Your task to perform on an android device: Add bose soundlink mini to the cart on target, then select checkout. Image 0: 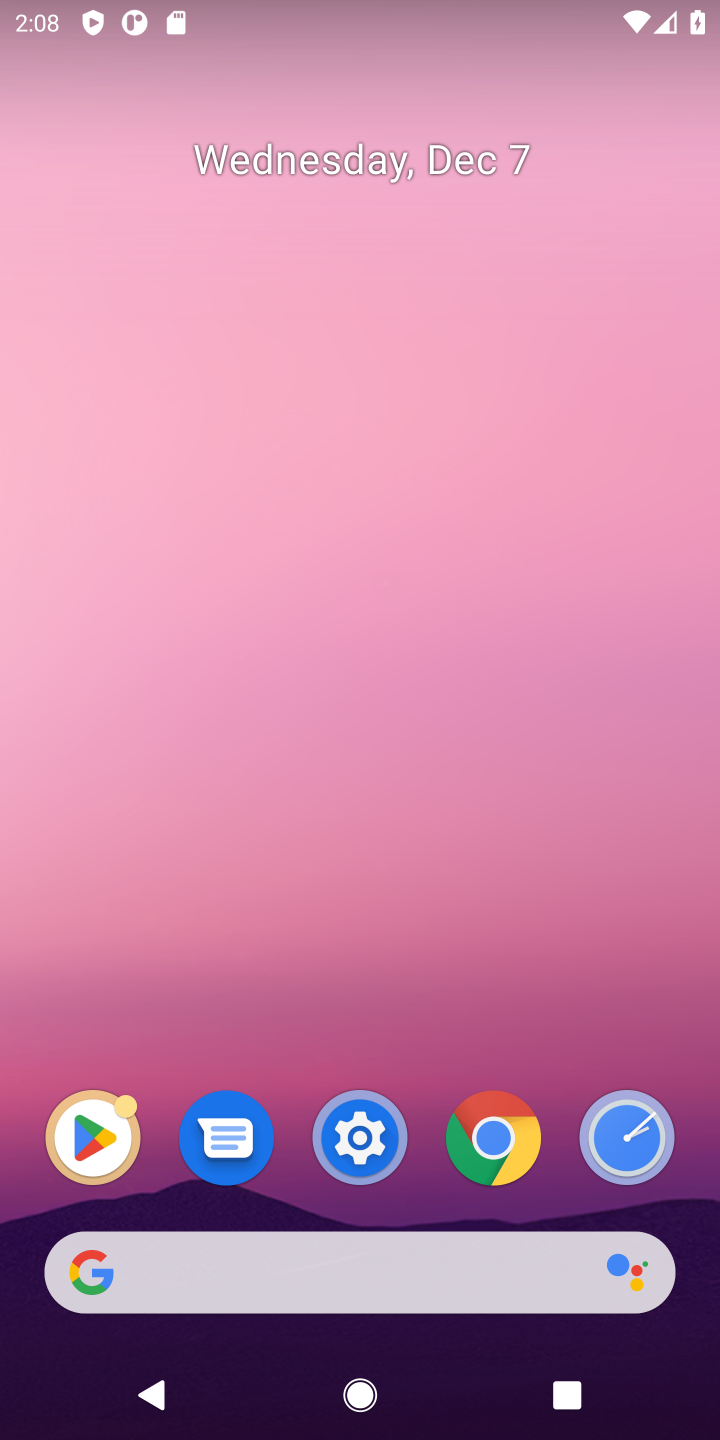
Step 0: click (304, 1267)
Your task to perform on an android device: Add bose soundlink mini to the cart on target, then select checkout. Image 1: 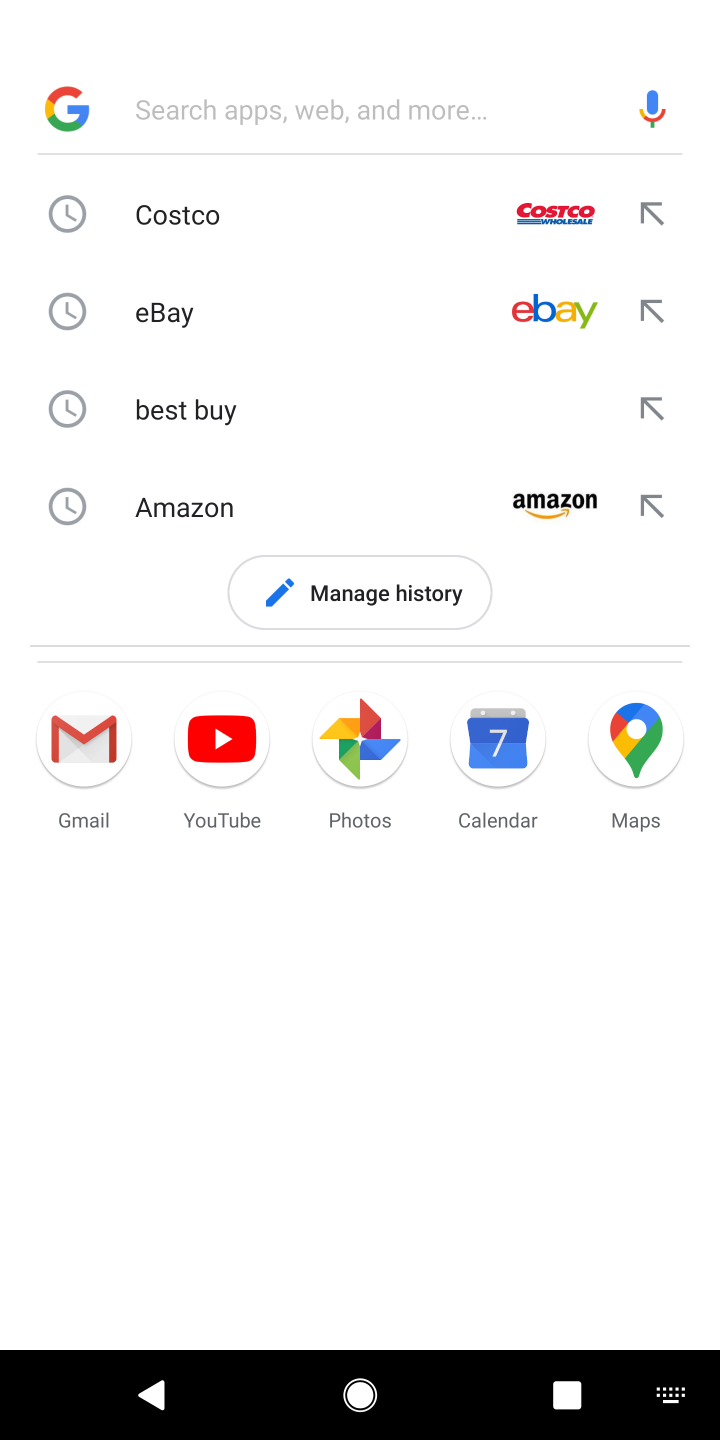
Step 1: type "target"
Your task to perform on an android device: Add bose soundlink mini to the cart on target, then select checkout. Image 2: 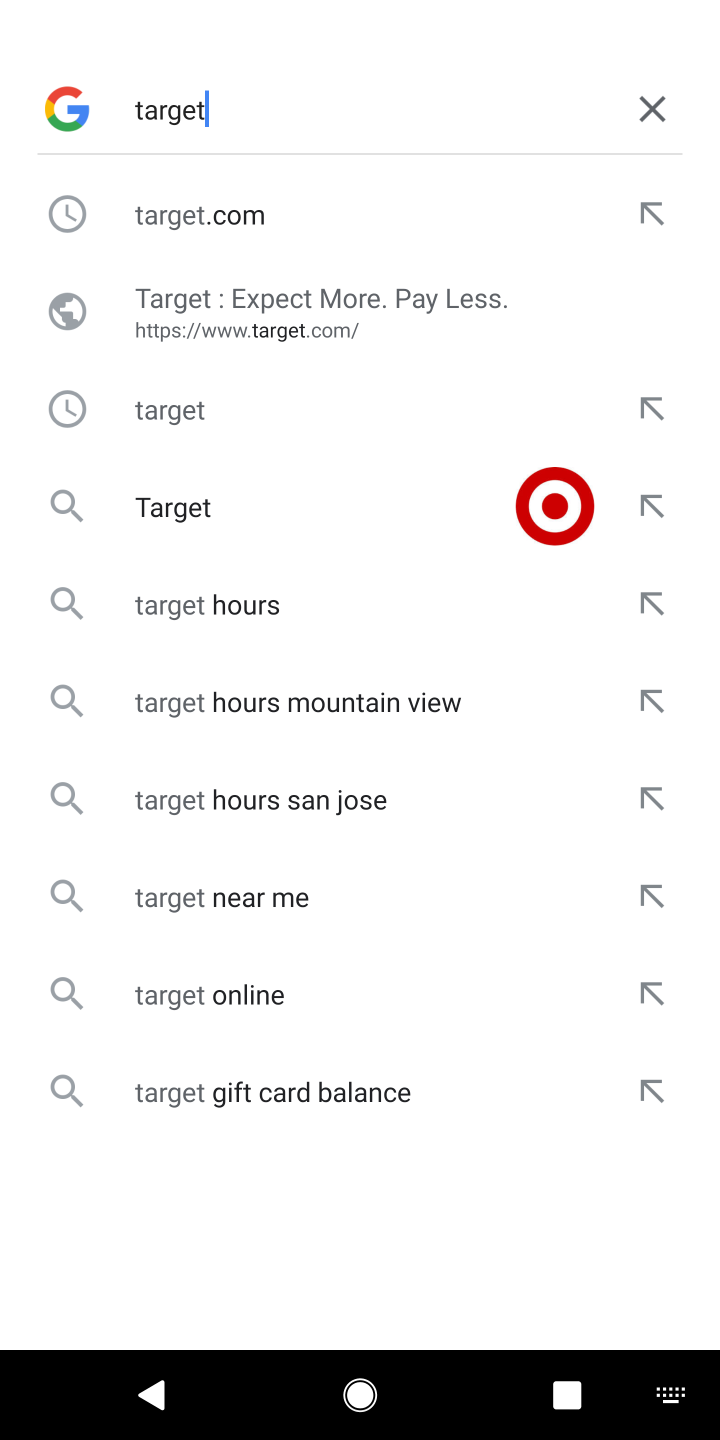
Step 2: click (182, 506)
Your task to perform on an android device: Add bose soundlink mini to the cart on target, then select checkout. Image 3: 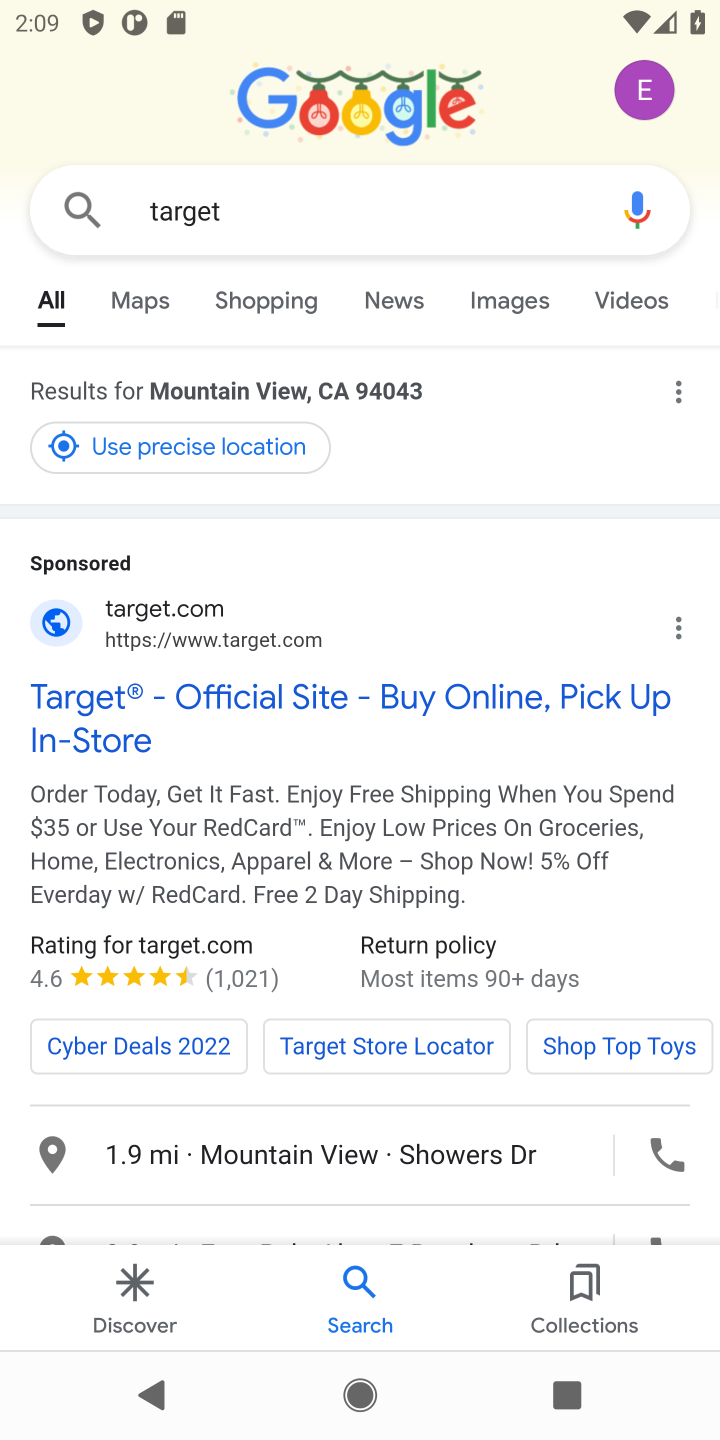
Step 3: click (104, 683)
Your task to perform on an android device: Add bose soundlink mini to the cart on target, then select checkout. Image 4: 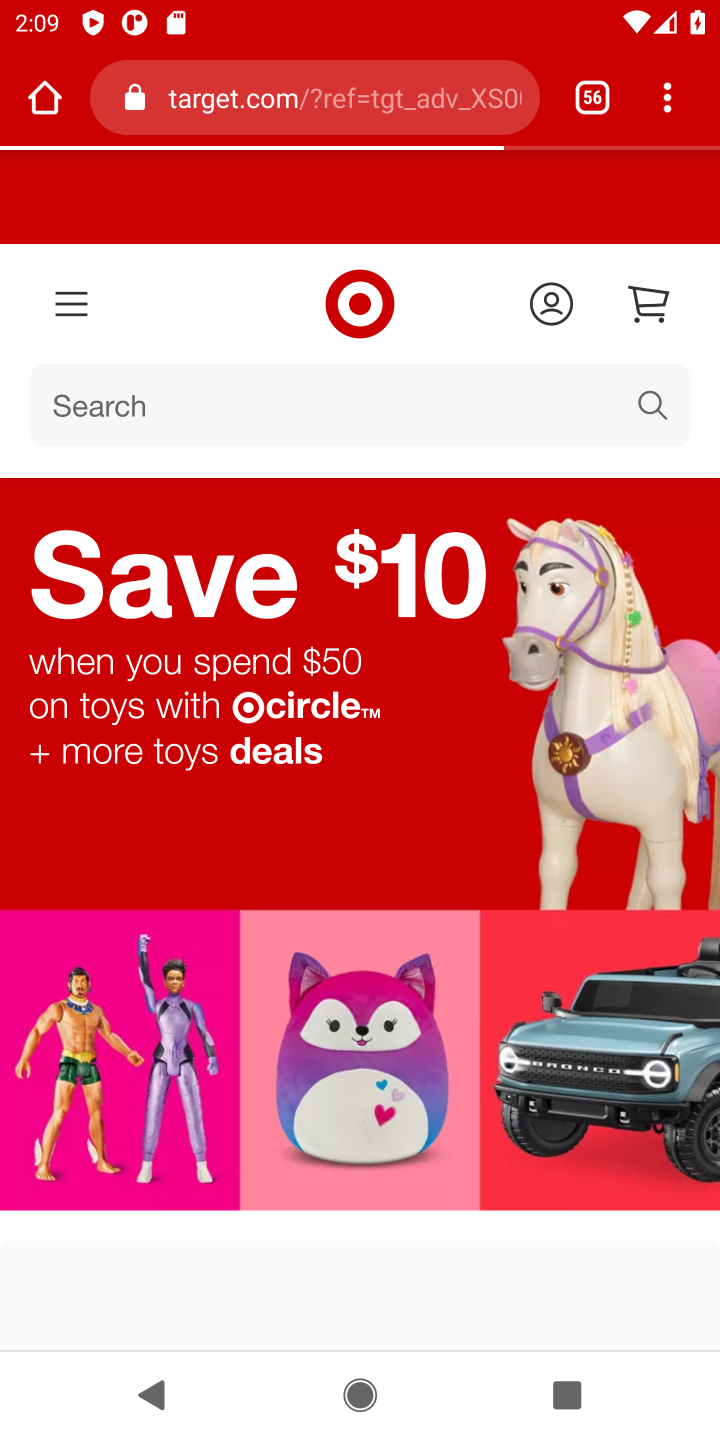
Step 4: click (266, 403)
Your task to perform on an android device: Add bose soundlink mini to the cart on target, then select checkout. Image 5: 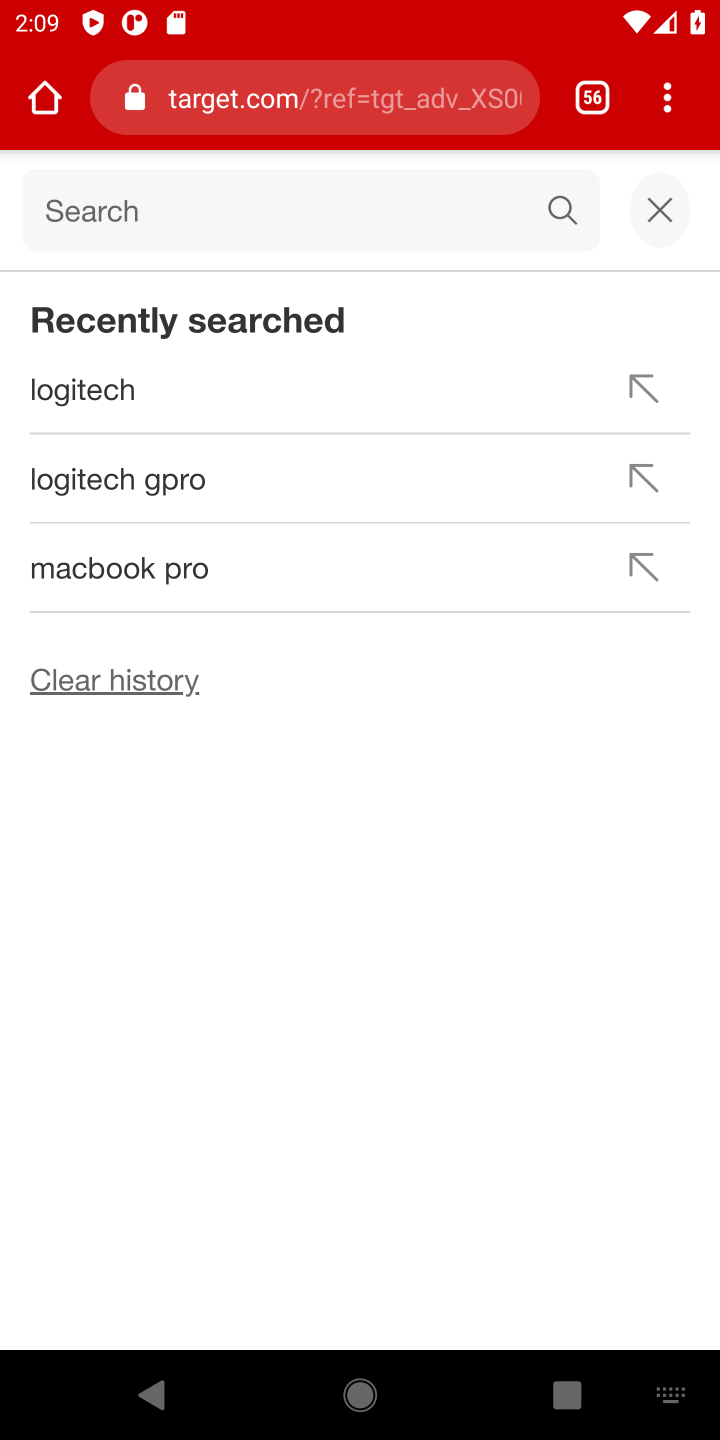
Step 5: type "soundlink"
Your task to perform on an android device: Add bose soundlink mini to the cart on target, then select checkout. Image 6: 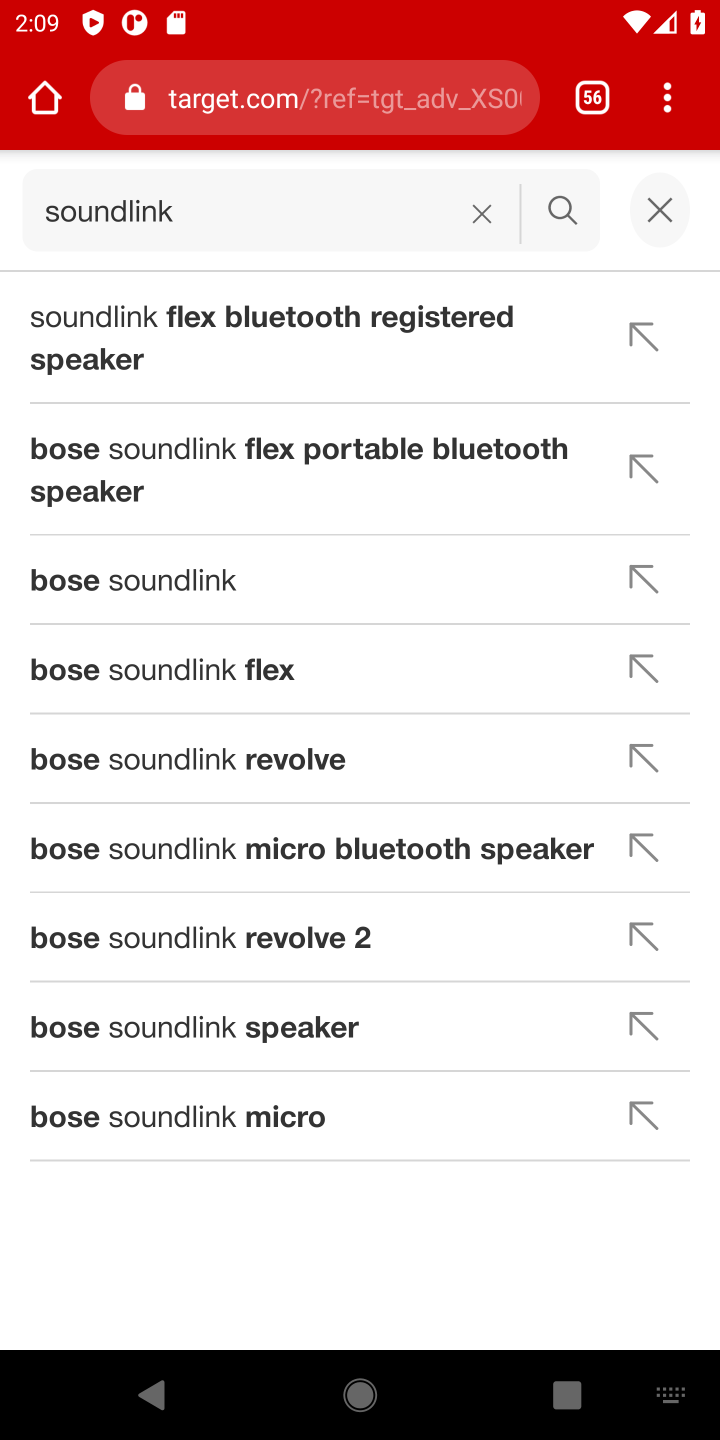
Step 6: click (128, 367)
Your task to perform on an android device: Add bose soundlink mini to the cart on target, then select checkout. Image 7: 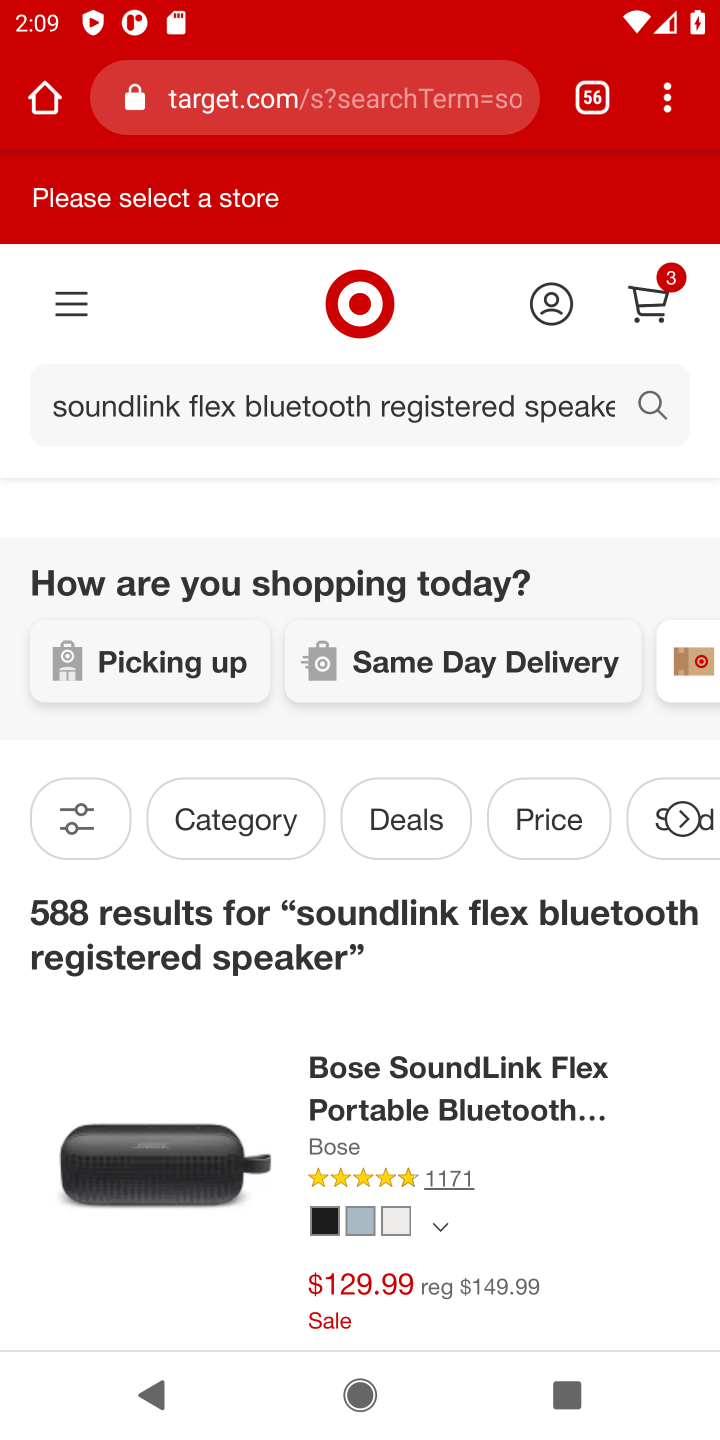
Step 7: drag from (284, 1100) to (297, 536)
Your task to perform on an android device: Add bose soundlink mini to the cart on target, then select checkout. Image 8: 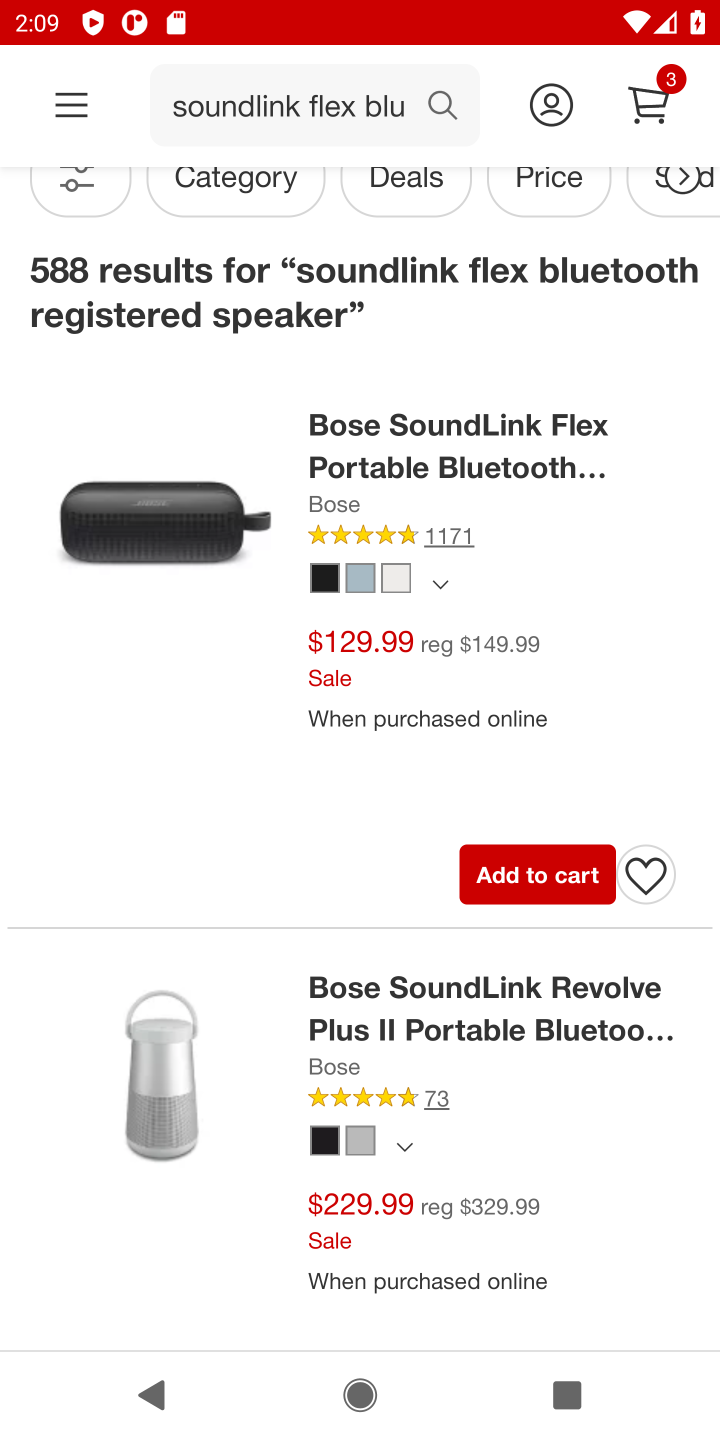
Step 8: click (511, 857)
Your task to perform on an android device: Add bose soundlink mini to the cart on target, then select checkout. Image 9: 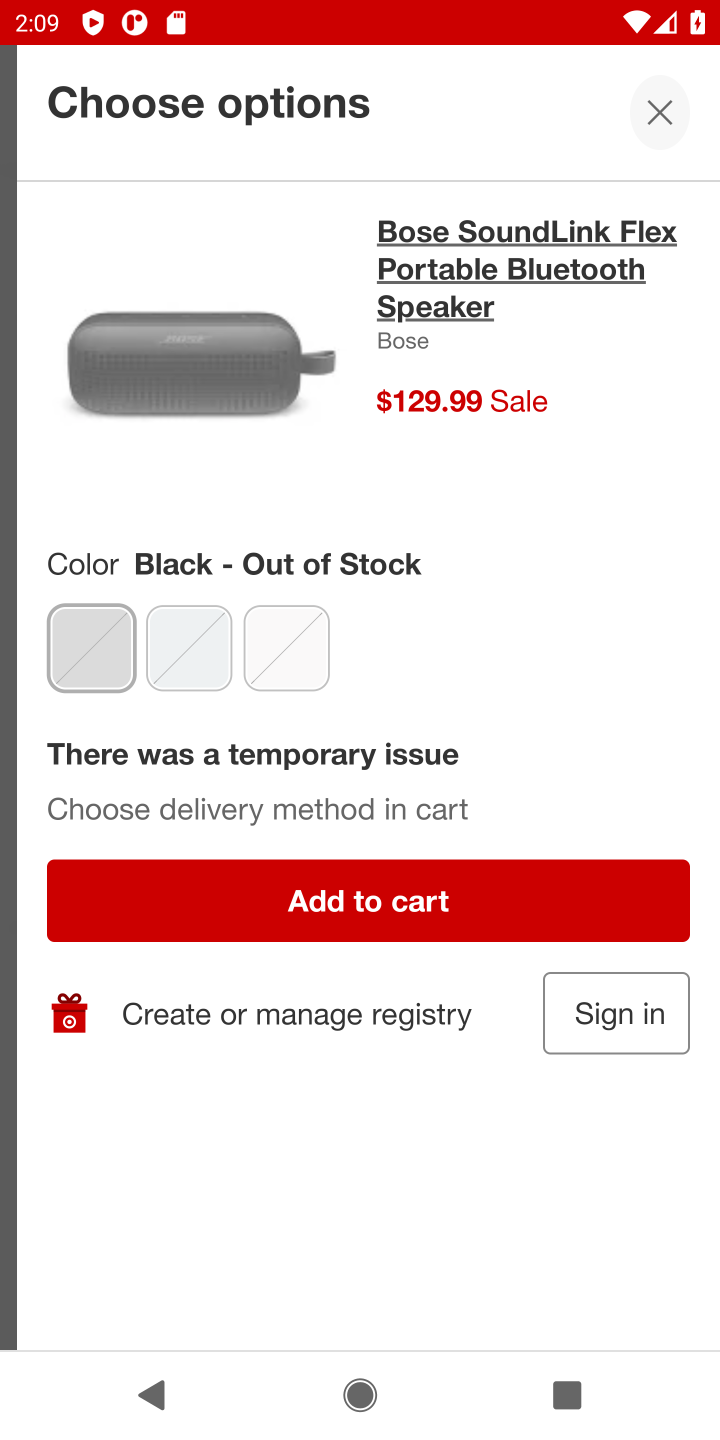
Step 9: task complete